Your task to perform on an android device: Open calendar and show me the first week of next month Image 0: 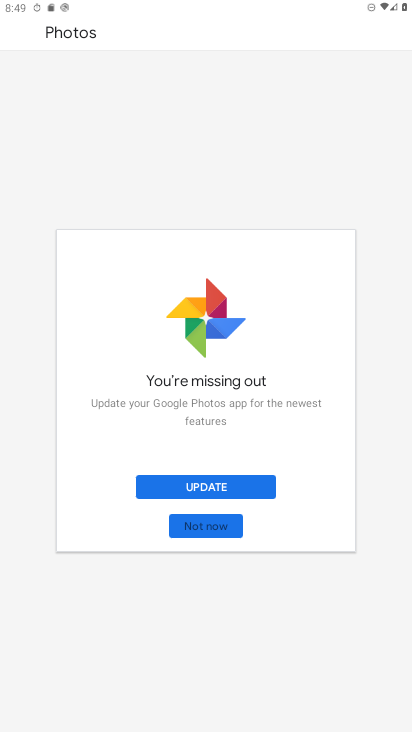
Step 0: press home button
Your task to perform on an android device: Open calendar and show me the first week of next month Image 1: 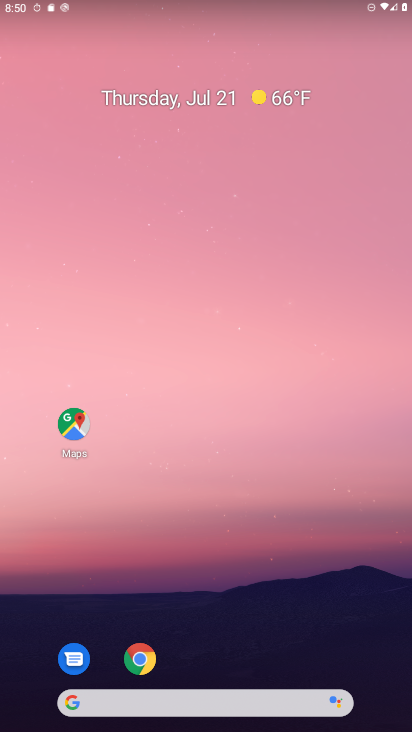
Step 1: drag from (221, 418) to (242, 150)
Your task to perform on an android device: Open calendar and show me the first week of next month Image 2: 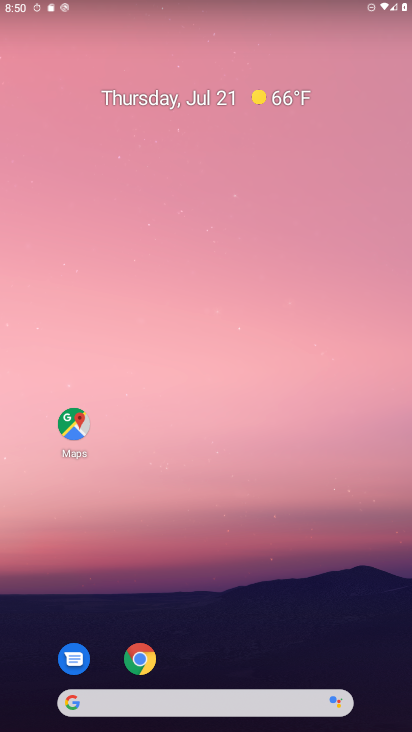
Step 2: drag from (180, 619) to (239, 254)
Your task to perform on an android device: Open calendar and show me the first week of next month Image 3: 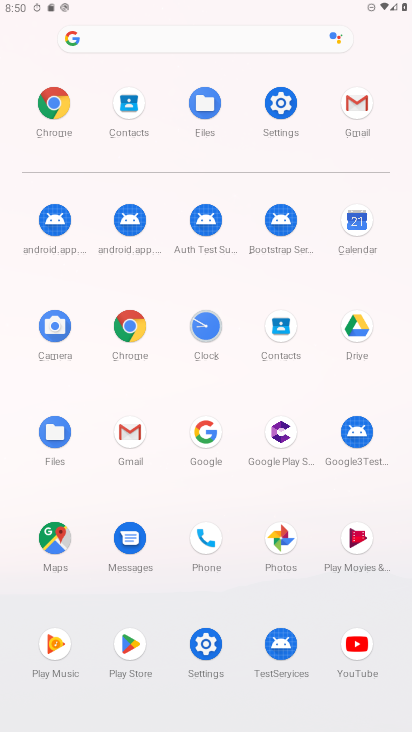
Step 3: click (348, 213)
Your task to perform on an android device: Open calendar and show me the first week of next month Image 4: 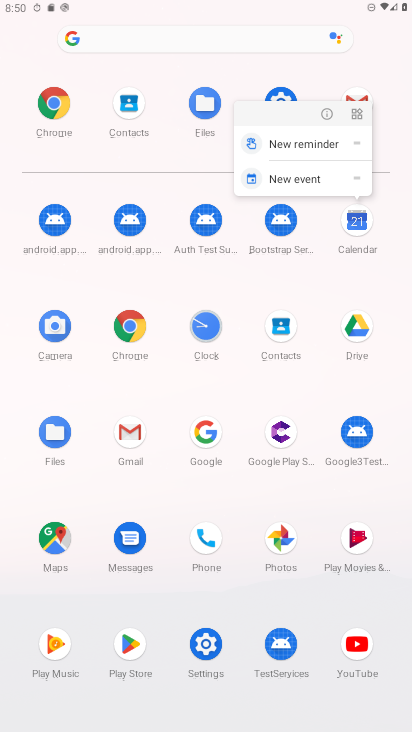
Step 4: click (325, 113)
Your task to perform on an android device: Open calendar and show me the first week of next month Image 5: 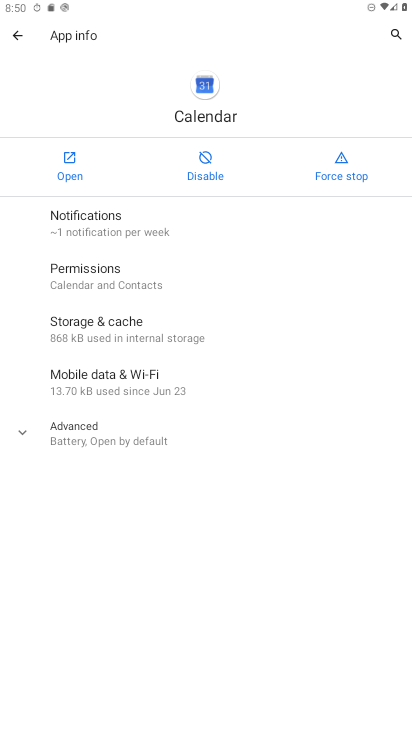
Step 5: click (71, 165)
Your task to perform on an android device: Open calendar and show me the first week of next month Image 6: 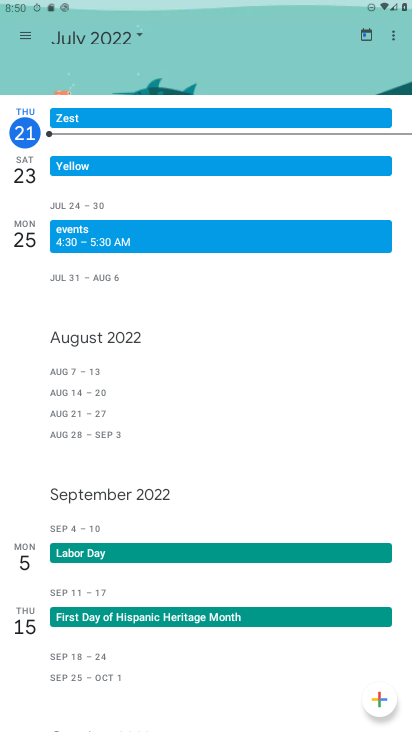
Step 6: click (110, 38)
Your task to perform on an android device: Open calendar and show me the first week of next month Image 7: 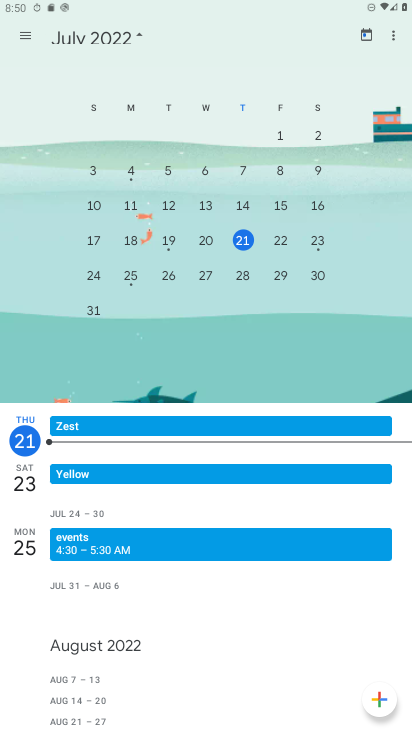
Step 7: drag from (306, 199) to (23, 196)
Your task to perform on an android device: Open calendar and show me the first week of next month Image 8: 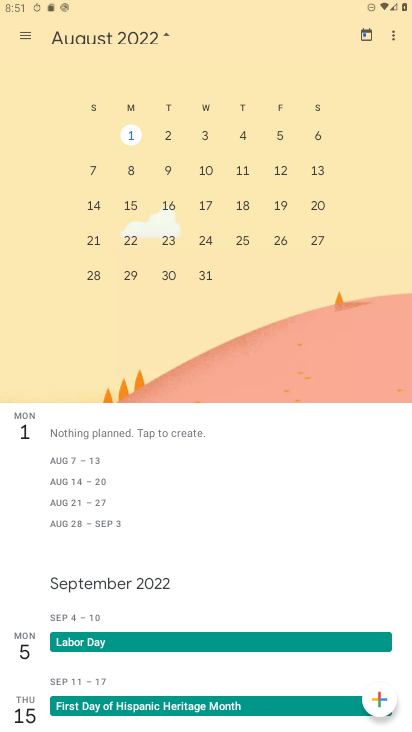
Step 8: click (279, 138)
Your task to perform on an android device: Open calendar and show me the first week of next month Image 9: 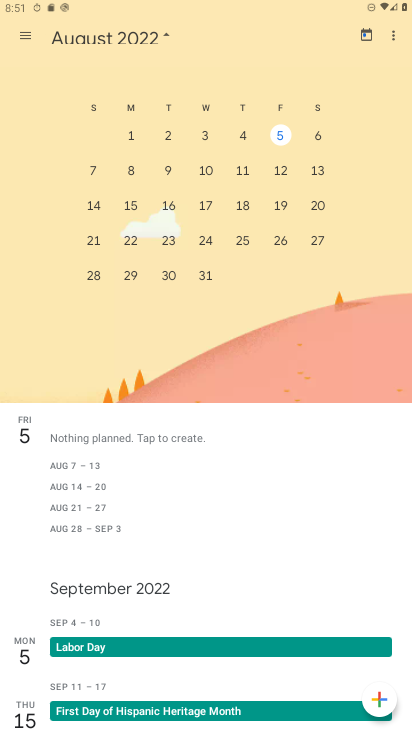
Step 9: task complete